Your task to perform on an android device: Open notification settings Image 0: 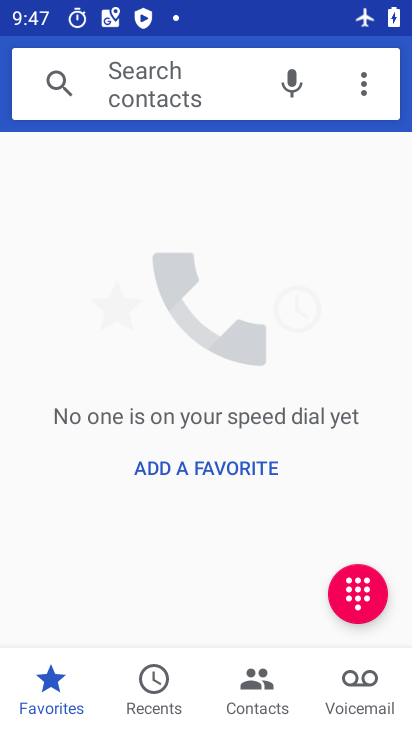
Step 0: press home button
Your task to perform on an android device: Open notification settings Image 1: 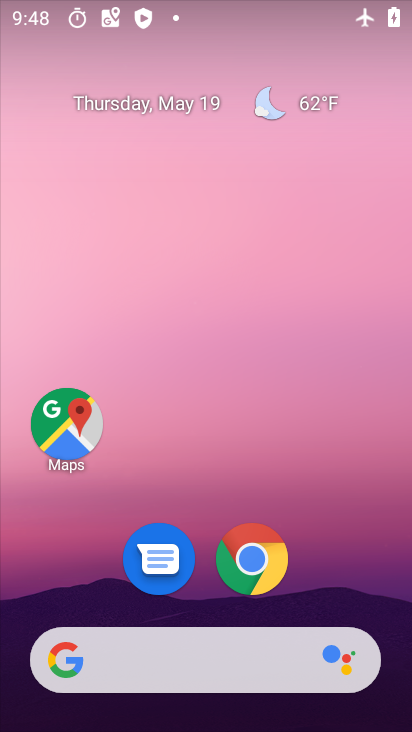
Step 1: drag from (362, 555) to (216, 135)
Your task to perform on an android device: Open notification settings Image 2: 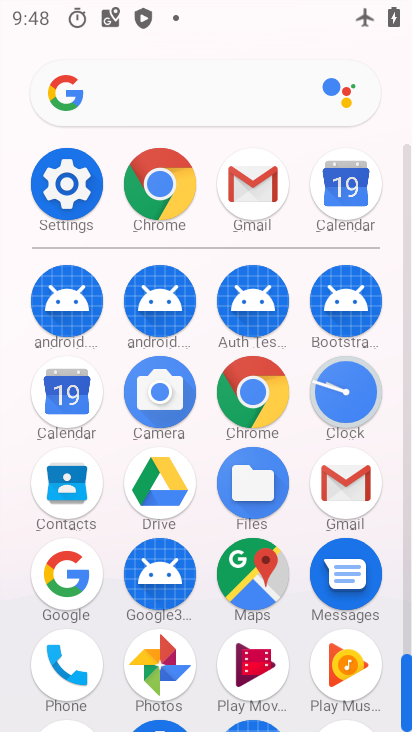
Step 2: click (73, 201)
Your task to perform on an android device: Open notification settings Image 3: 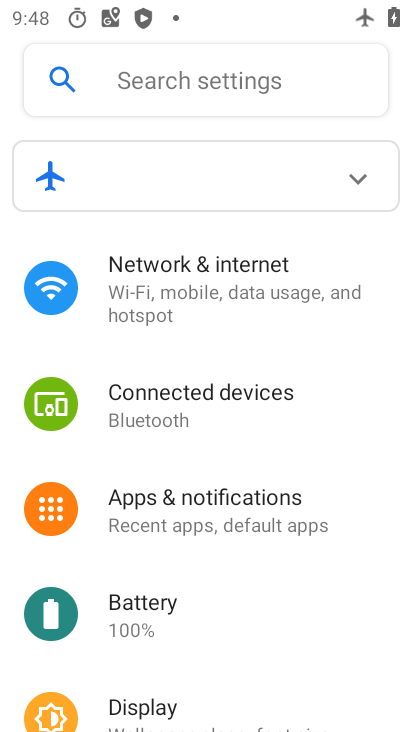
Step 3: click (204, 489)
Your task to perform on an android device: Open notification settings Image 4: 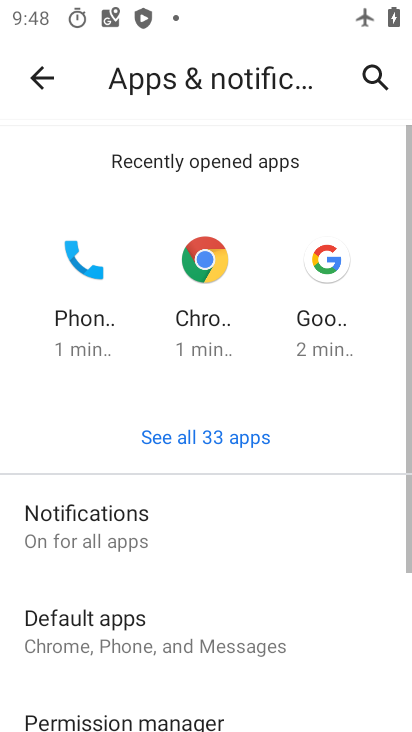
Step 4: drag from (201, 480) to (194, 164)
Your task to perform on an android device: Open notification settings Image 5: 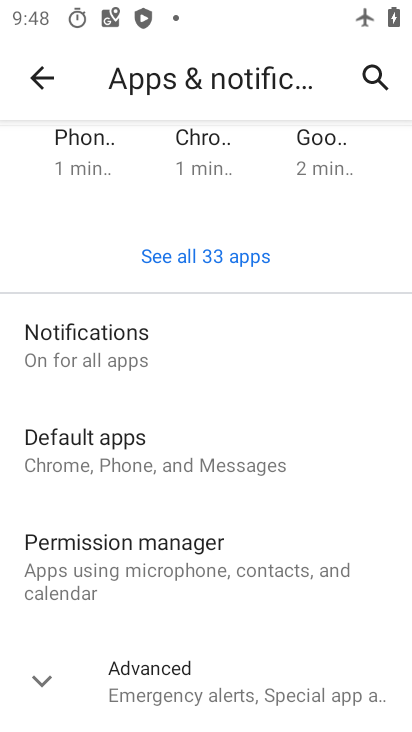
Step 5: click (95, 342)
Your task to perform on an android device: Open notification settings Image 6: 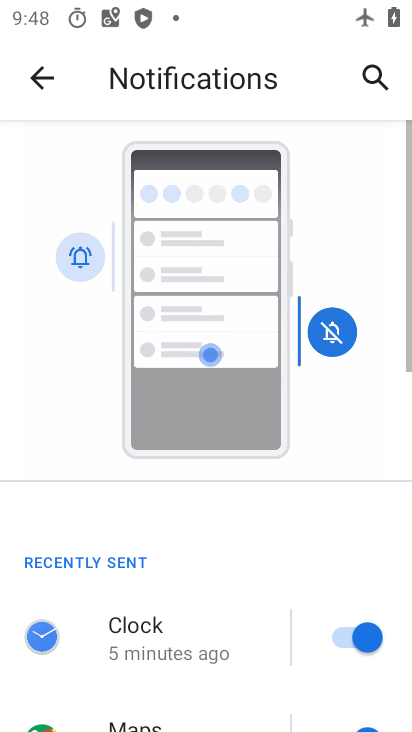
Step 6: task complete